Your task to perform on an android device: turn off location Image 0: 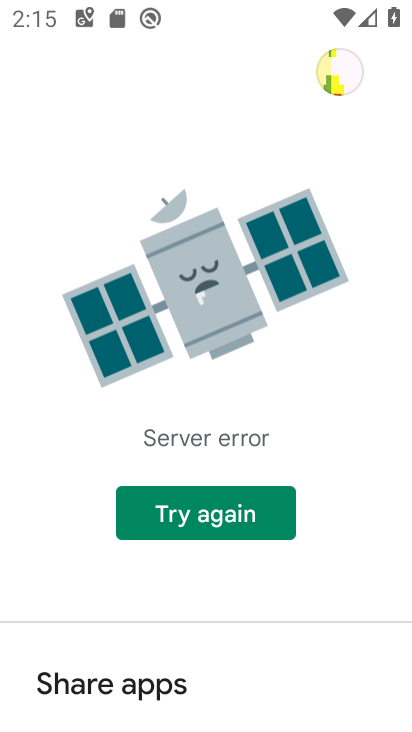
Step 0: press home button
Your task to perform on an android device: turn off location Image 1: 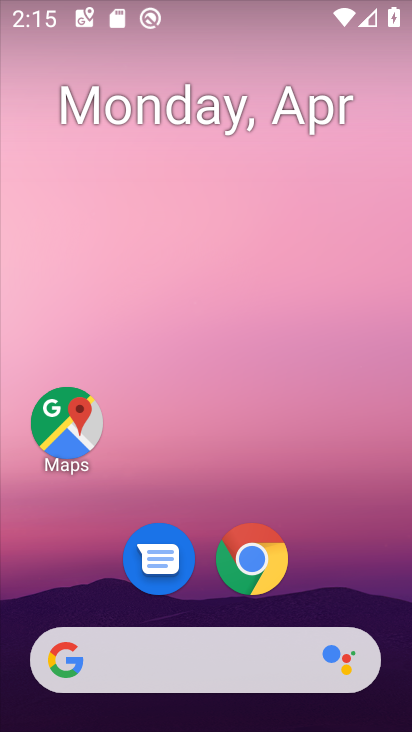
Step 1: drag from (350, 570) to (126, 150)
Your task to perform on an android device: turn off location Image 2: 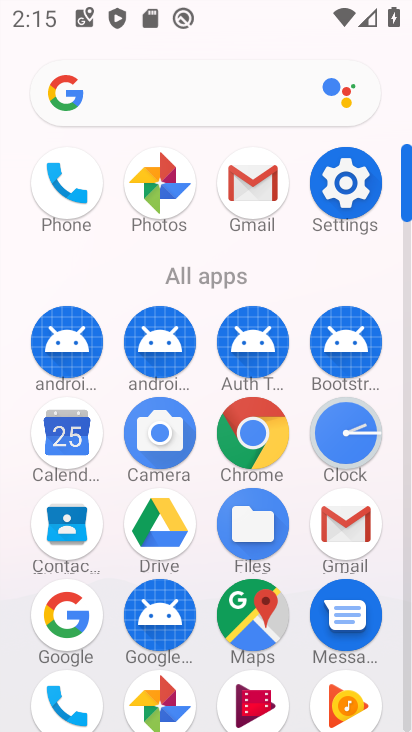
Step 2: click (336, 177)
Your task to perform on an android device: turn off location Image 3: 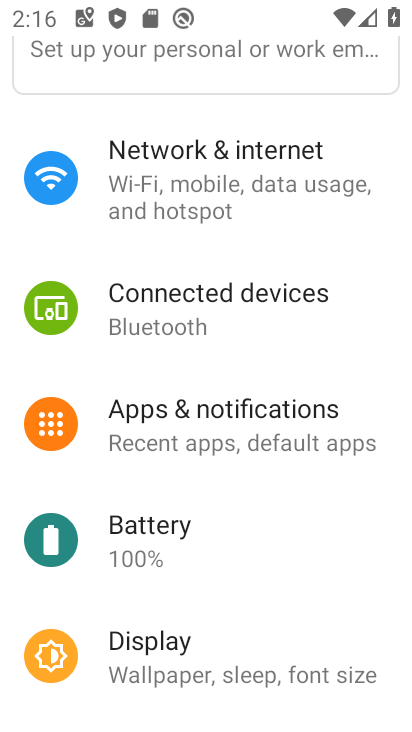
Step 3: drag from (212, 663) to (192, 243)
Your task to perform on an android device: turn off location Image 4: 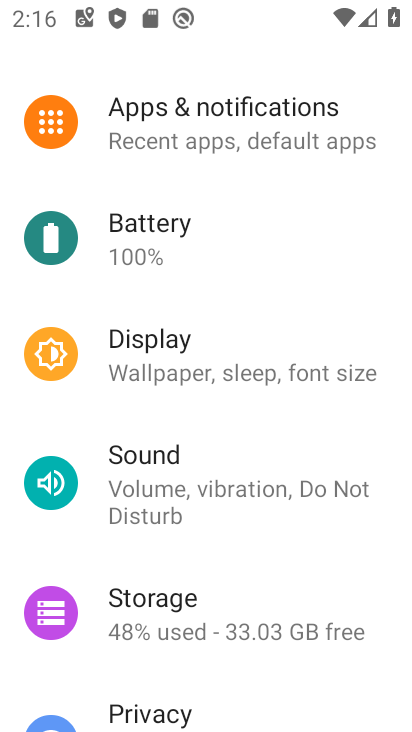
Step 4: drag from (264, 618) to (259, 237)
Your task to perform on an android device: turn off location Image 5: 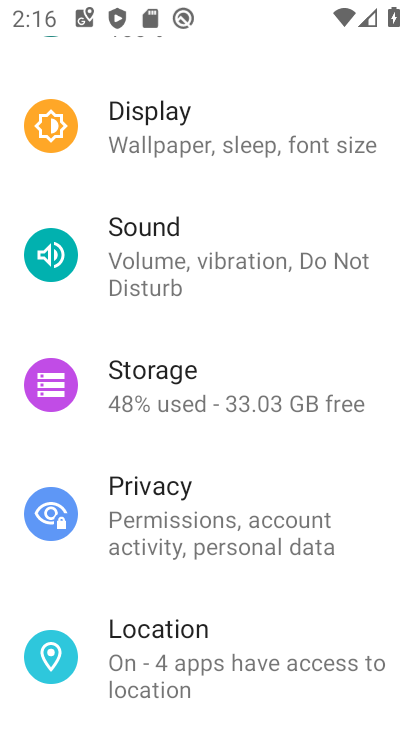
Step 5: click (218, 668)
Your task to perform on an android device: turn off location Image 6: 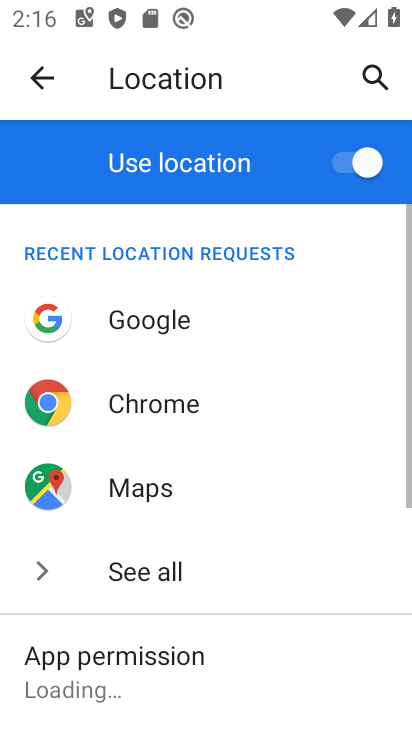
Step 6: click (354, 165)
Your task to perform on an android device: turn off location Image 7: 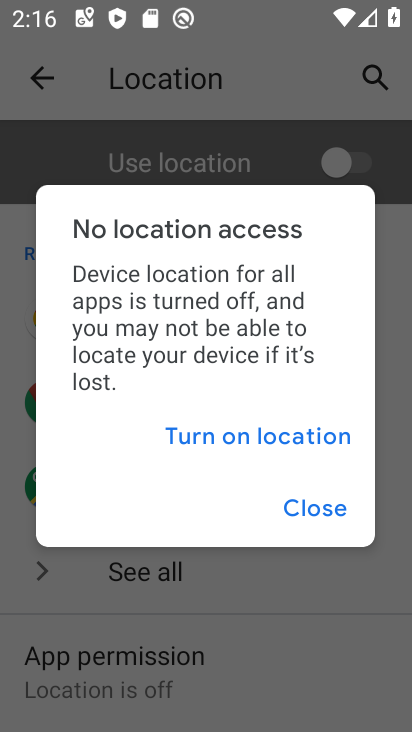
Step 7: task complete